Your task to perform on an android device: delete a single message in the gmail app Image 0: 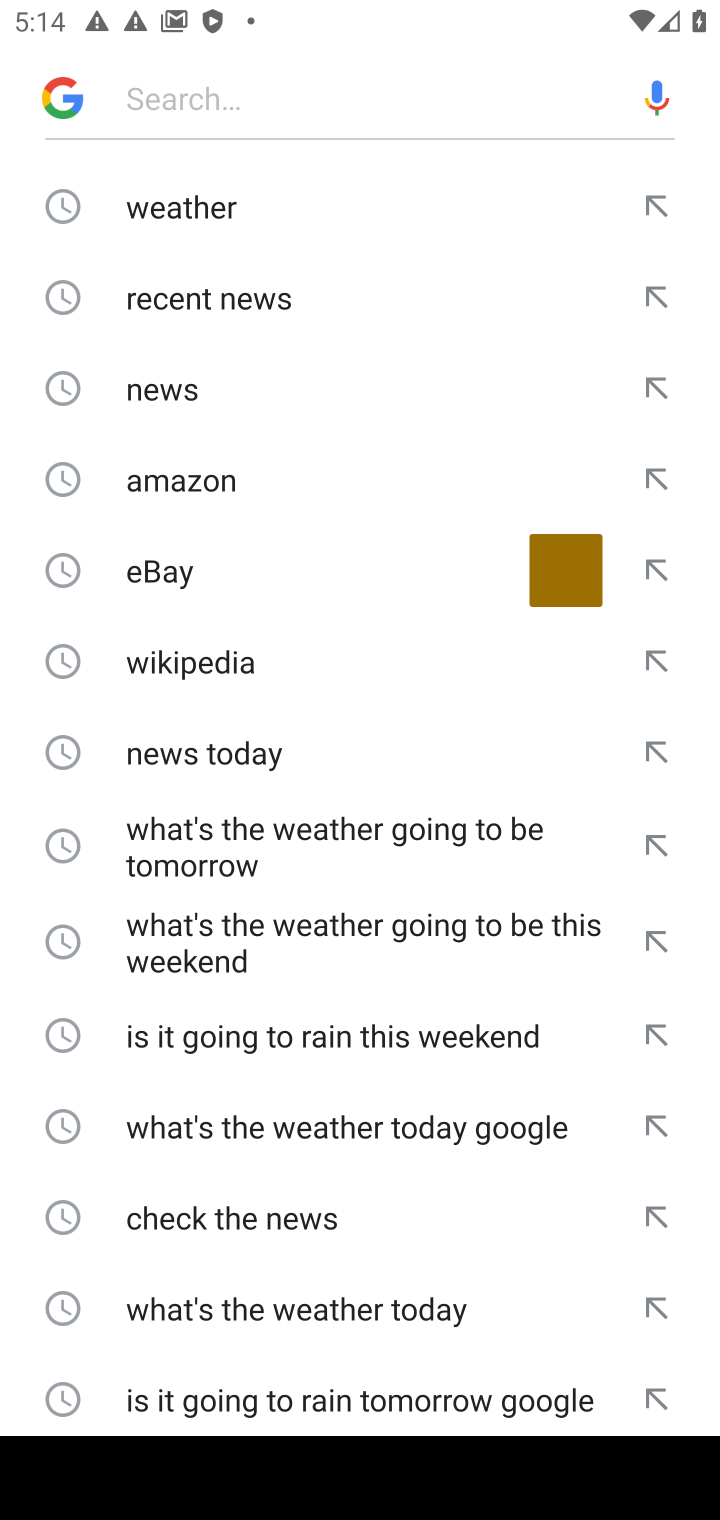
Step 0: press home button
Your task to perform on an android device: delete a single message in the gmail app Image 1: 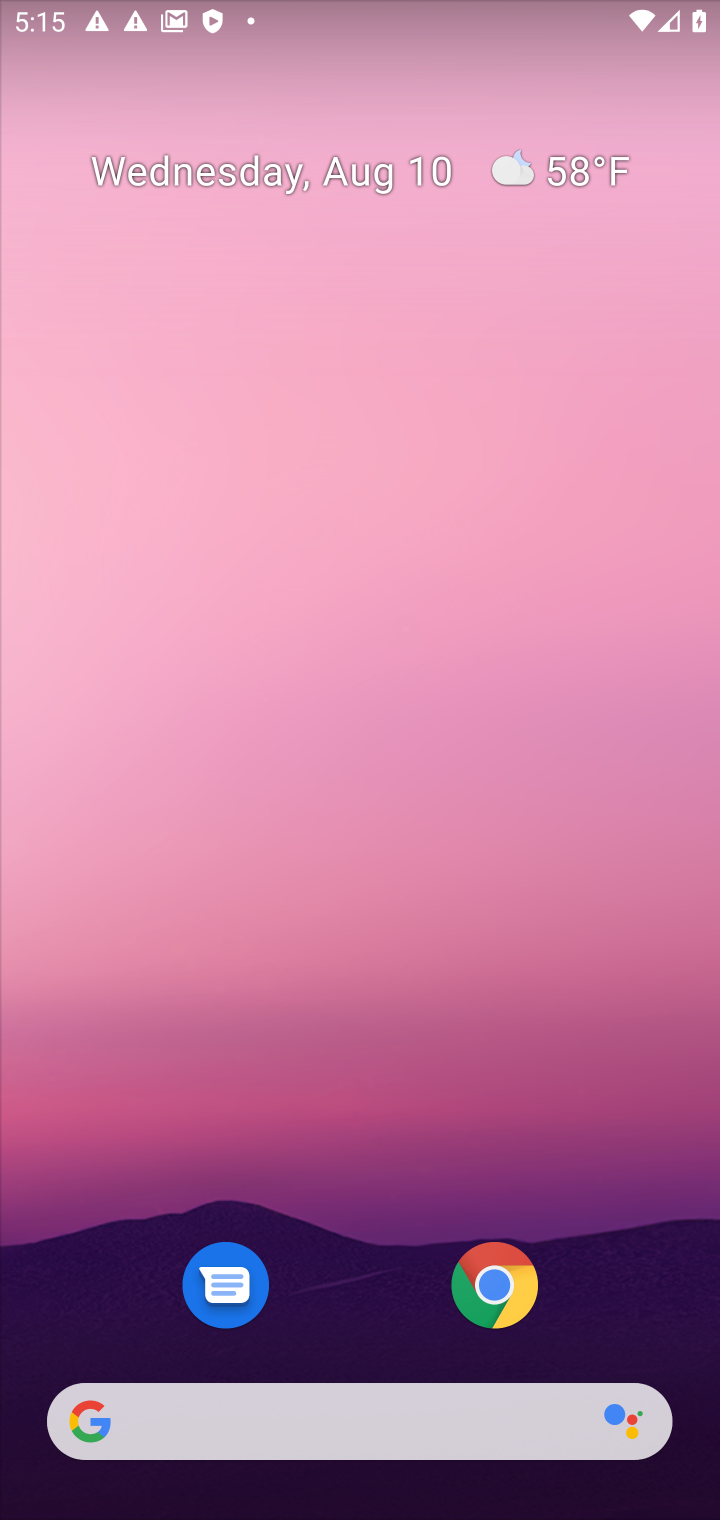
Step 1: drag from (368, 1319) to (276, 189)
Your task to perform on an android device: delete a single message in the gmail app Image 2: 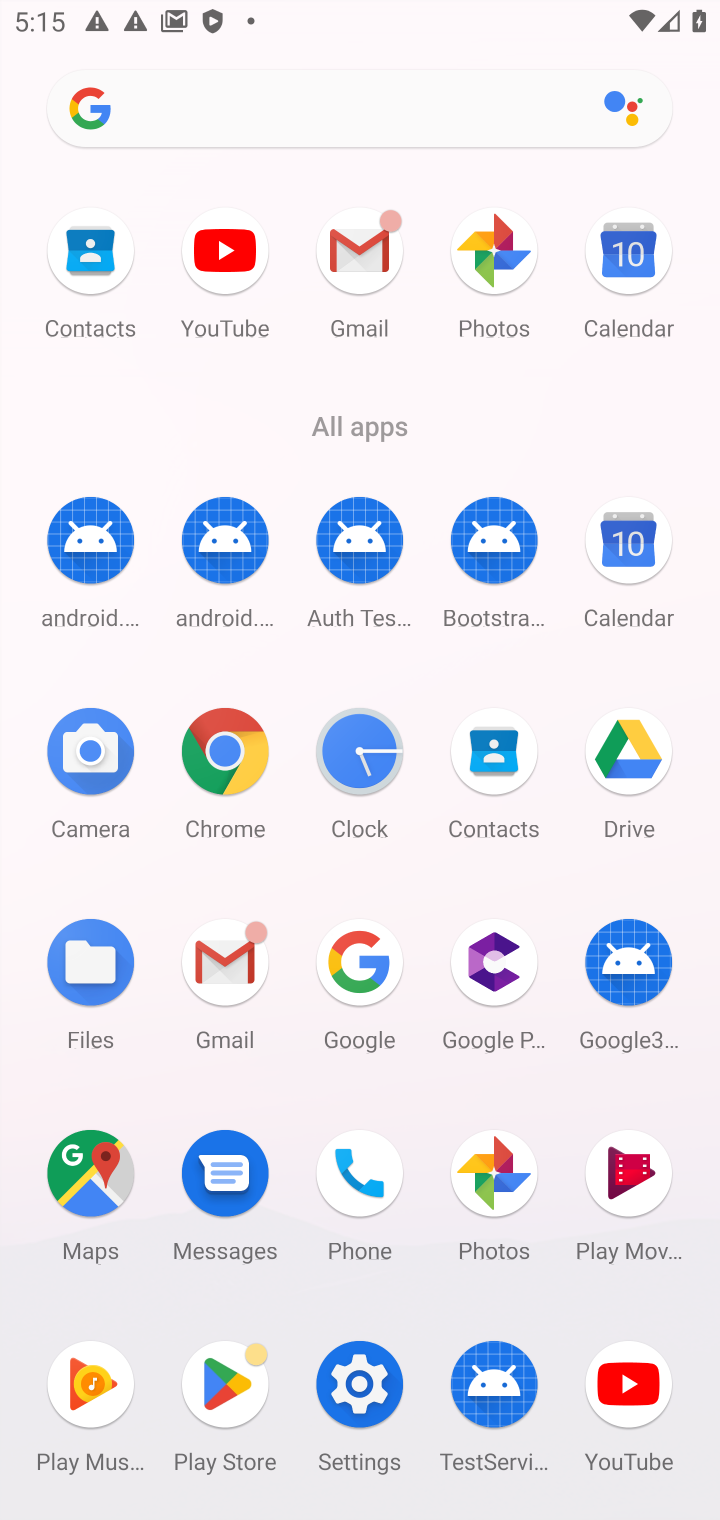
Step 2: click (236, 950)
Your task to perform on an android device: delete a single message in the gmail app Image 3: 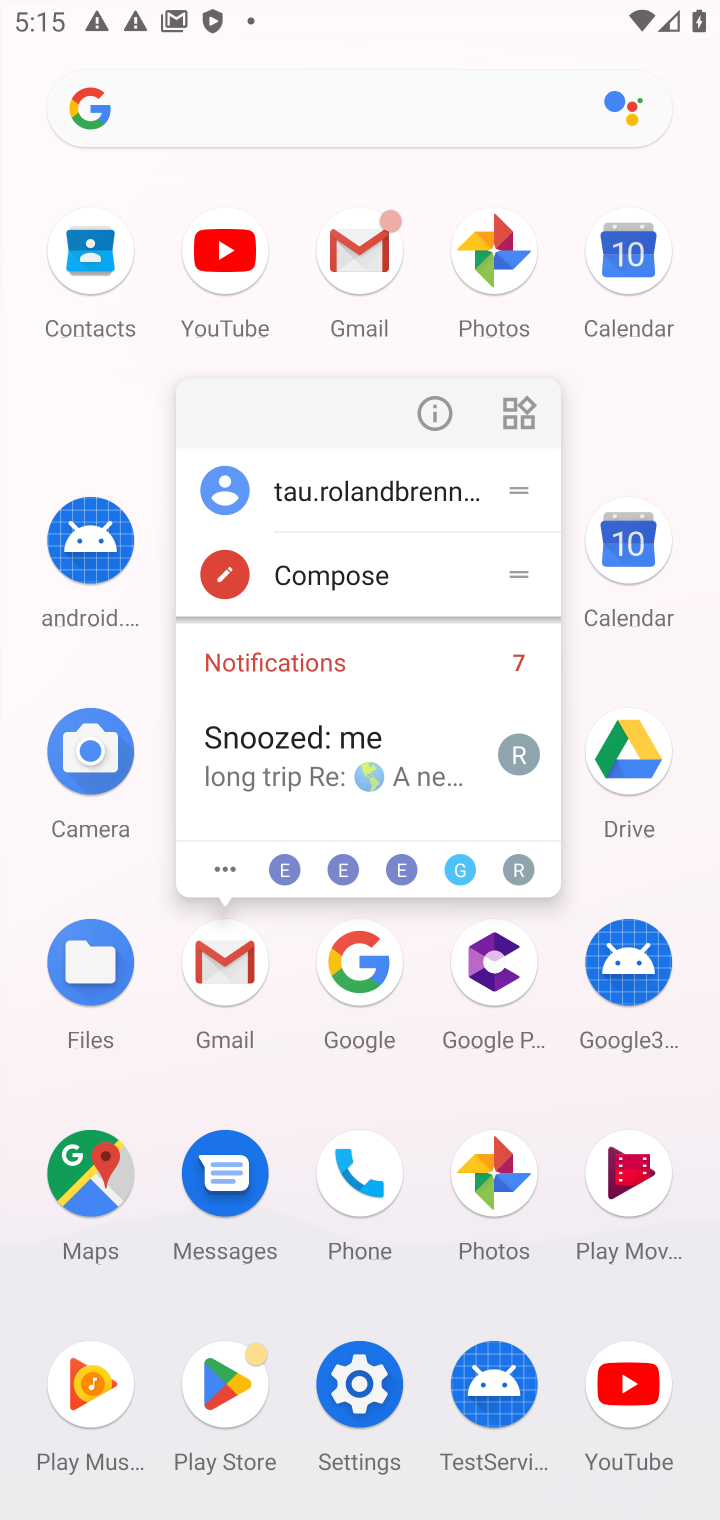
Step 3: click (239, 946)
Your task to perform on an android device: delete a single message in the gmail app Image 4: 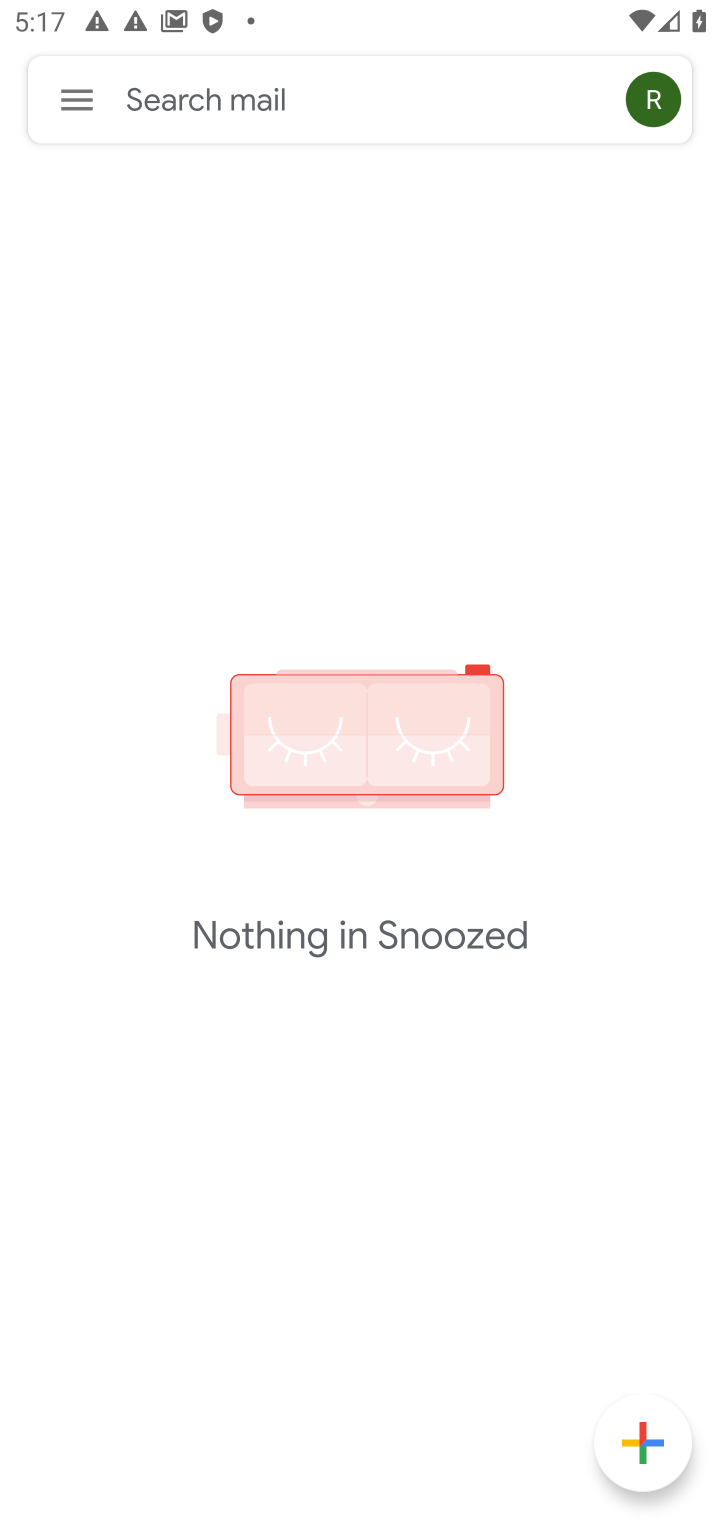
Step 4: click (74, 115)
Your task to perform on an android device: delete a single message in the gmail app Image 5: 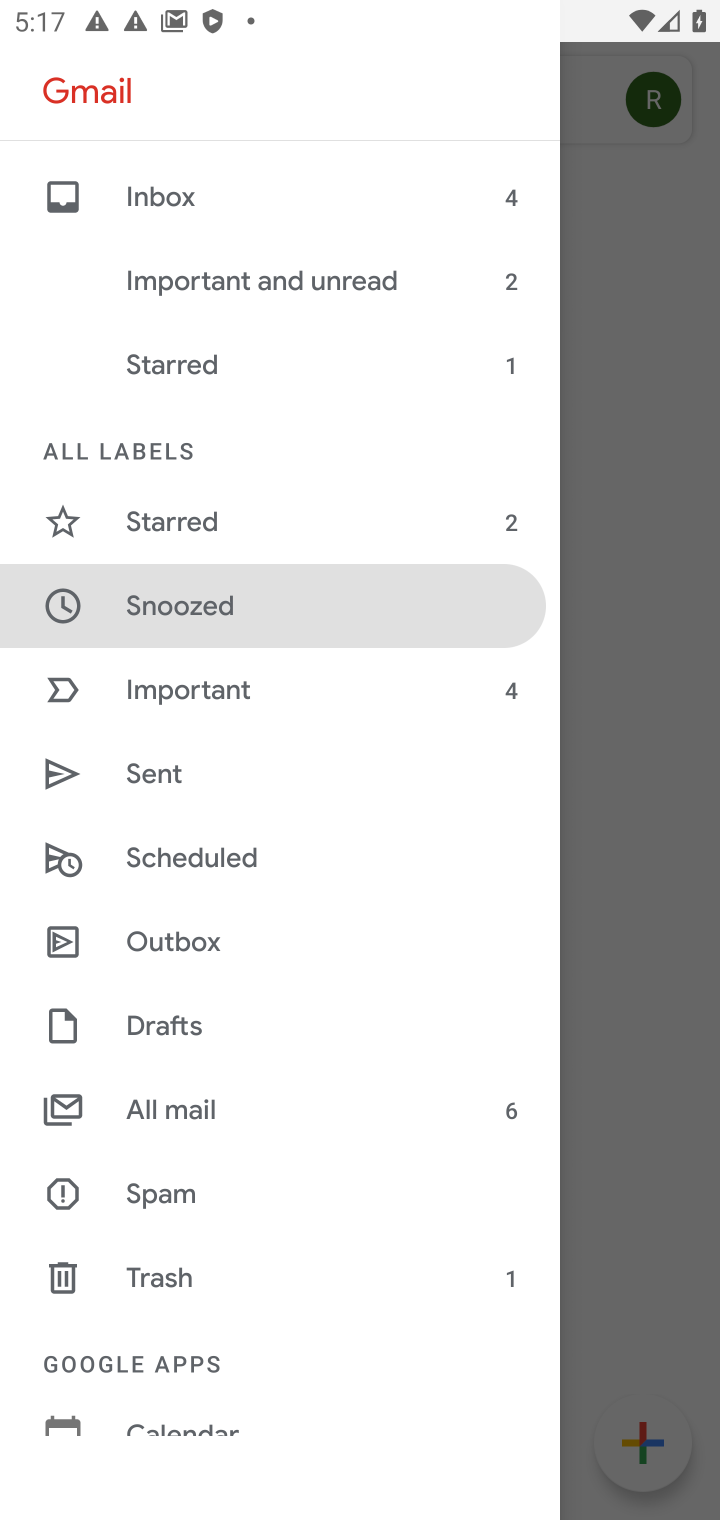
Step 5: click (193, 202)
Your task to perform on an android device: delete a single message in the gmail app Image 6: 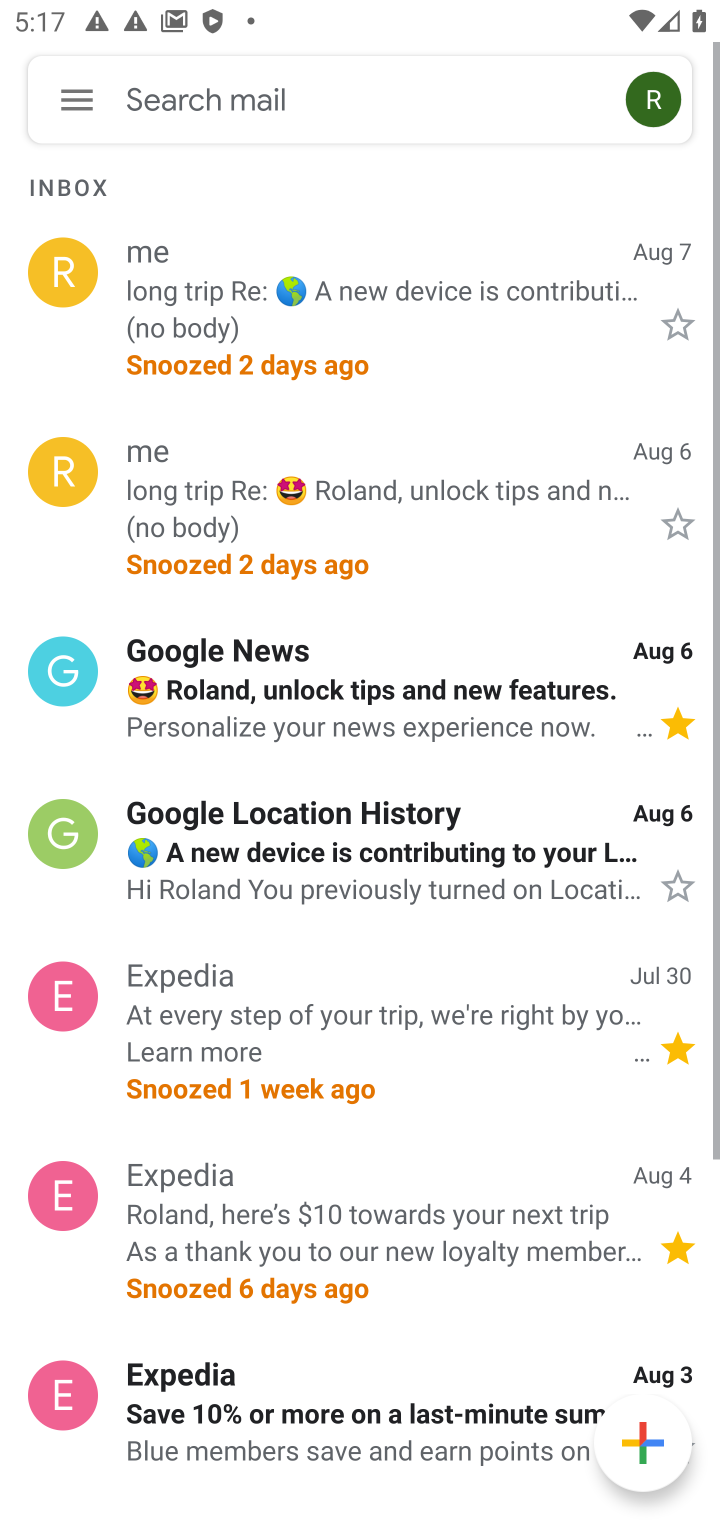
Step 6: click (268, 476)
Your task to perform on an android device: delete a single message in the gmail app Image 7: 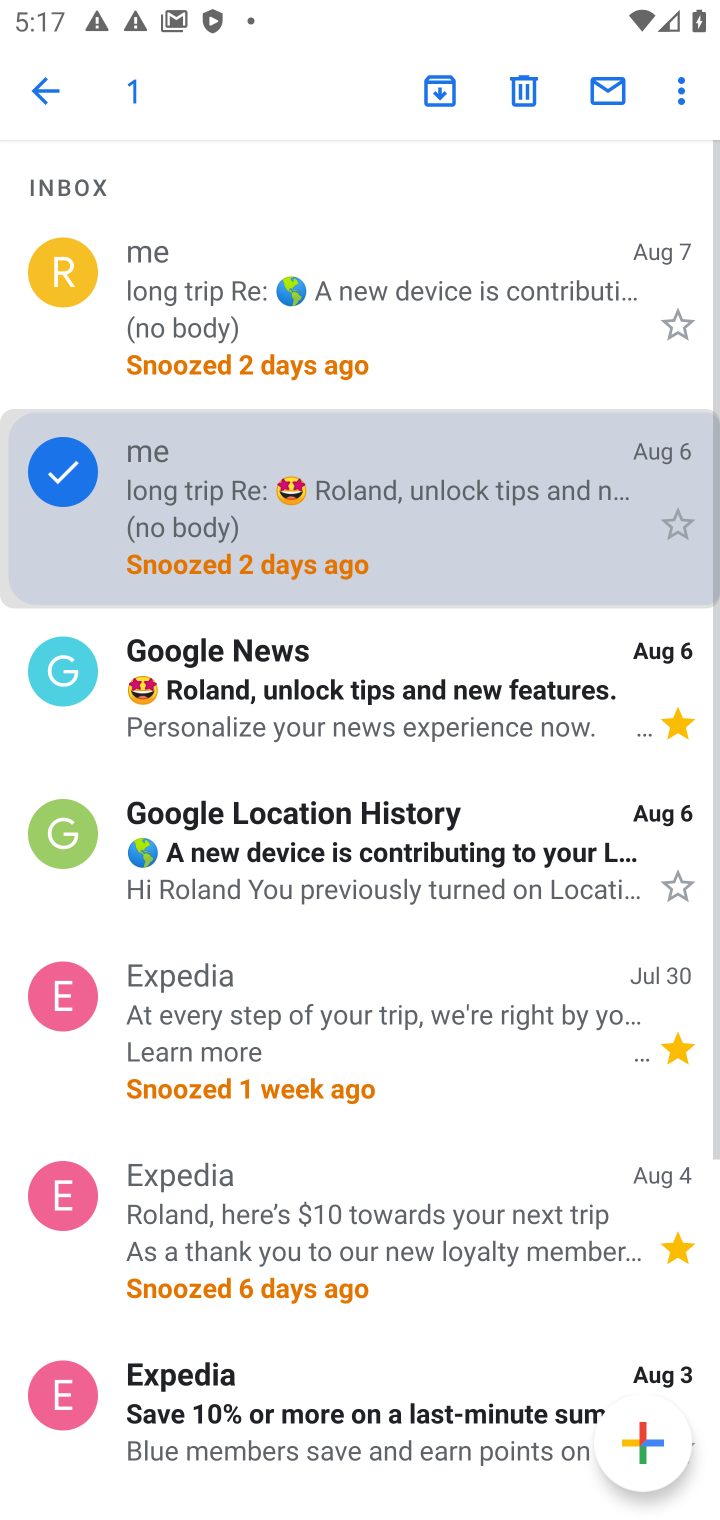
Step 7: click (508, 78)
Your task to perform on an android device: delete a single message in the gmail app Image 8: 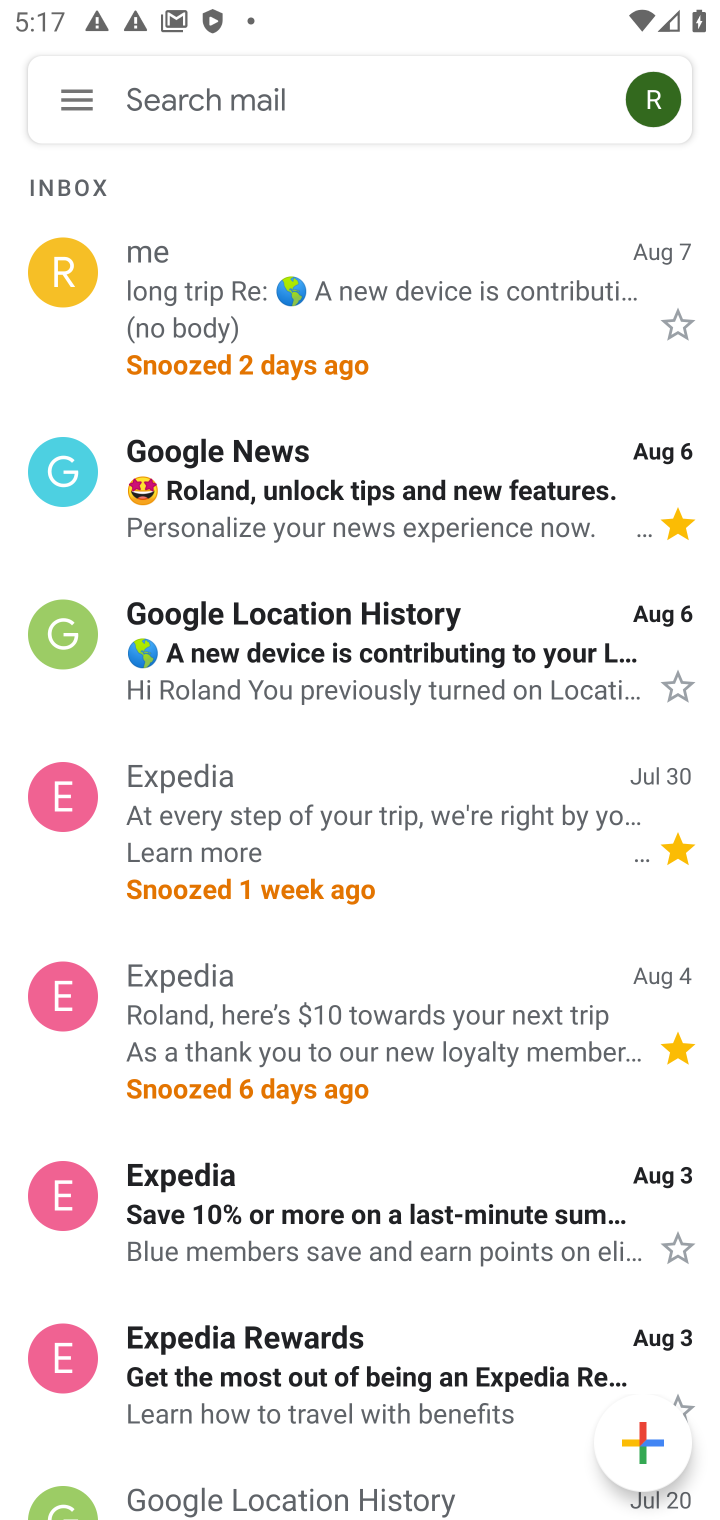
Step 8: task complete